Your task to perform on an android device: Show me recent news Image 0: 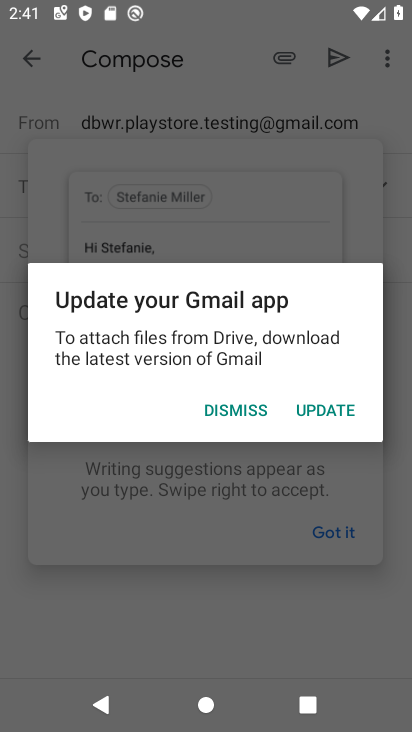
Step 0: press home button
Your task to perform on an android device: Show me recent news Image 1: 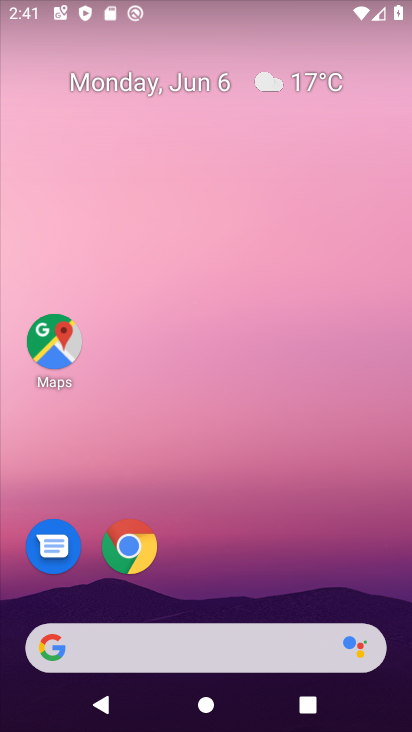
Step 1: drag from (283, 542) to (284, 16)
Your task to perform on an android device: Show me recent news Image 2: 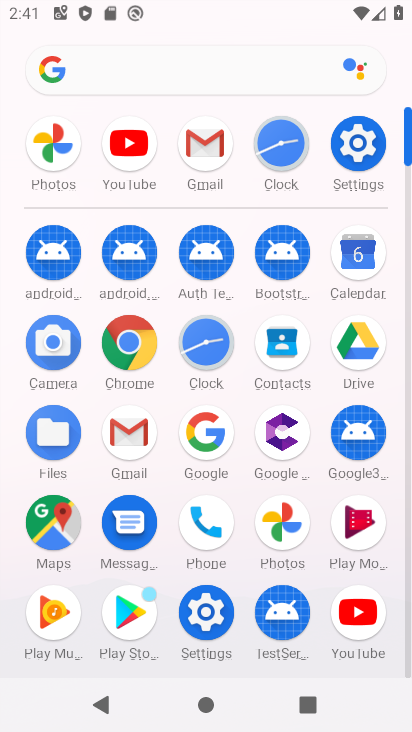
Step 2: click (137, 69)
Your task to perform on an android device: Show me recent news Image 3: 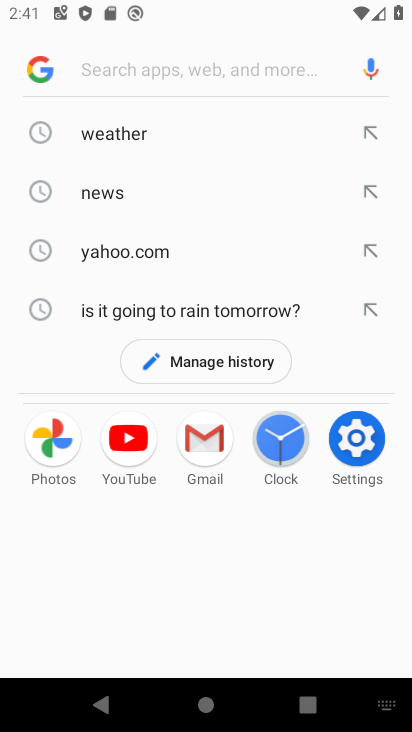
Step 3: click (163, 193)
Your task to perform on an android device: Show me recent news Image 4: 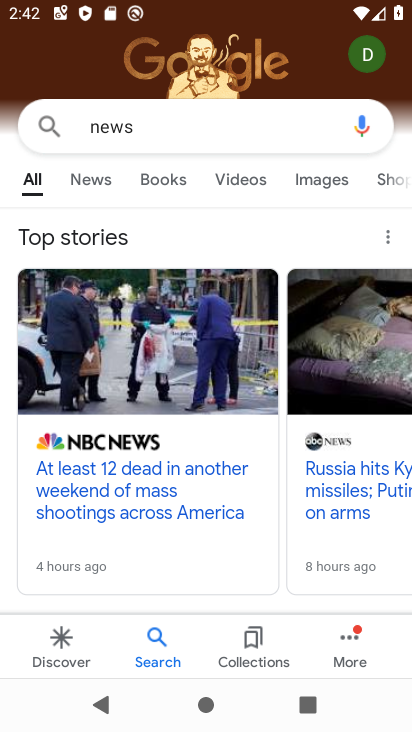
Step 4: task complete